Your task to perform on an android device: all mails in gmail Image 0: 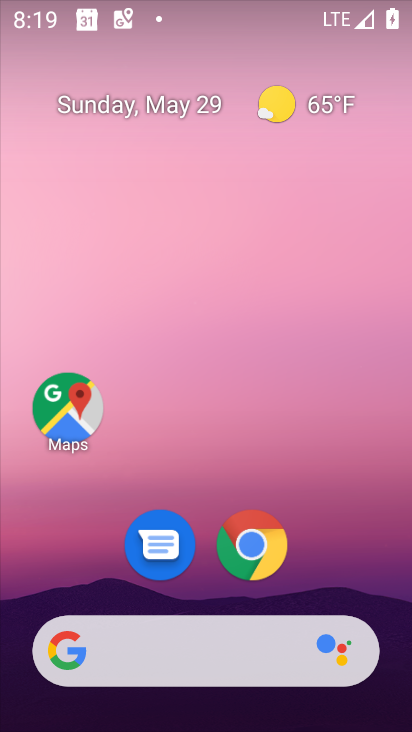
Step 0: drag from (225, 591) to (231, 218)
Your task to perform on an android device: all mails in gmail Image 1: 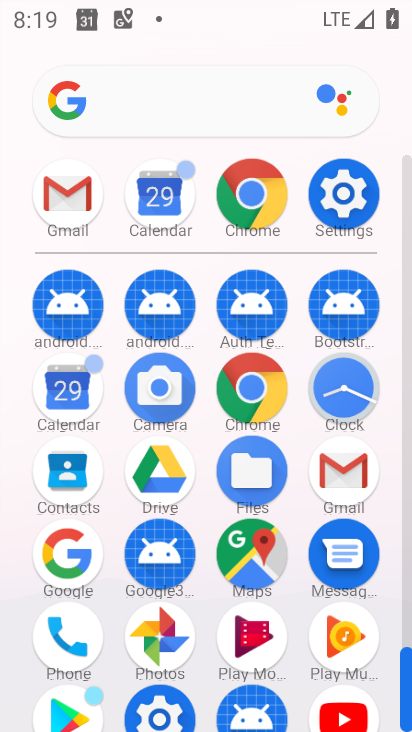
Step 1: click (64, 198)
Your task to perform on an android device: all mails in gmail Image 2: 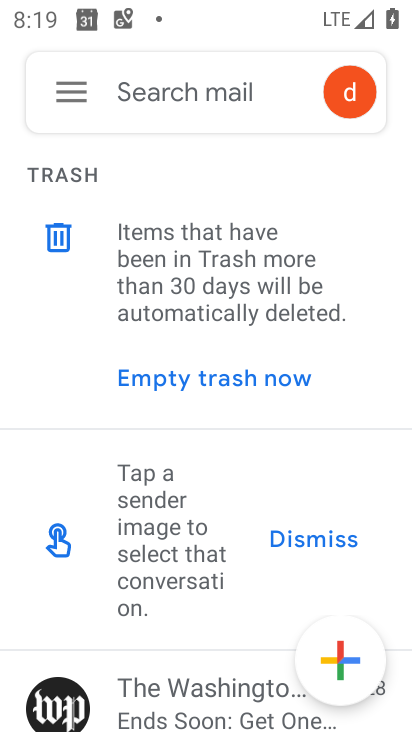
Step 2: click (81, 90)
Your task to perform on an android device: all mails in gmail Image 3: 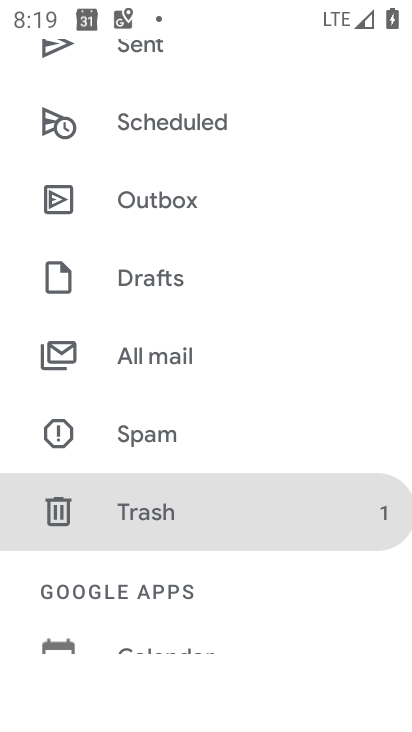
Step 3: click (174, 359)
Your task to perform on an android device: all mails in gmail Image 4: 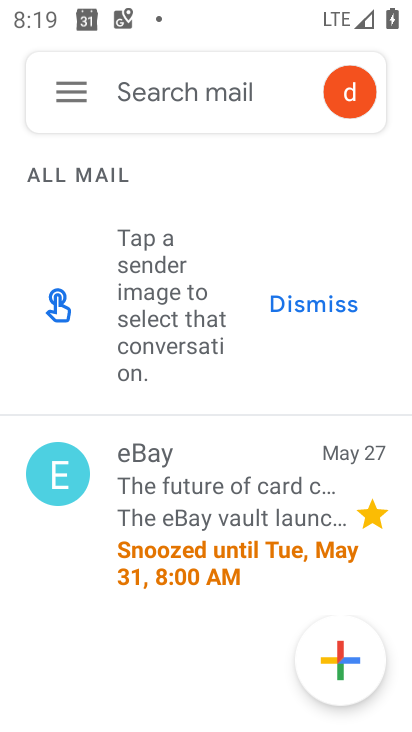
Step 4: task complete